Your task to perform on an android device: Open Reddit.com Image 0: 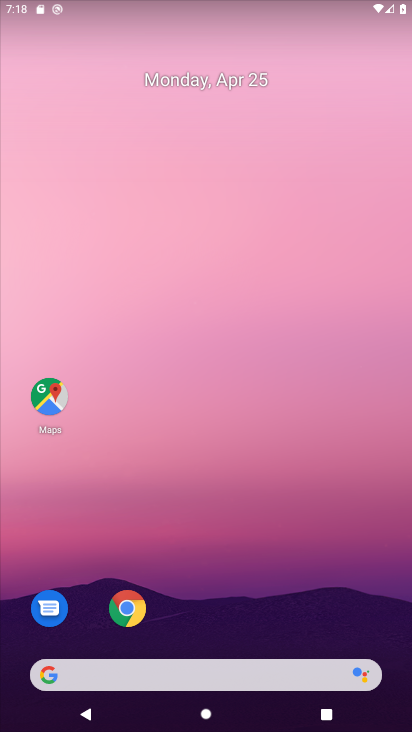
Step 0: click (128, 600)
Your task to perform on an android device: Open Reddit.com Image 1: 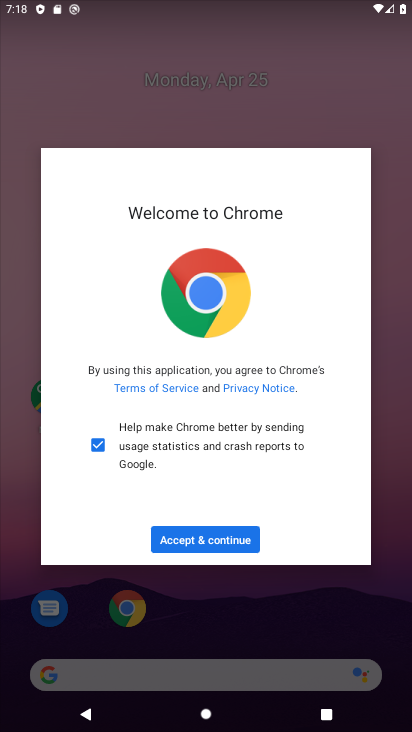
Step 1: click (231, 535)
Your task to perform on an android device: Open Reddit.com Image 2: 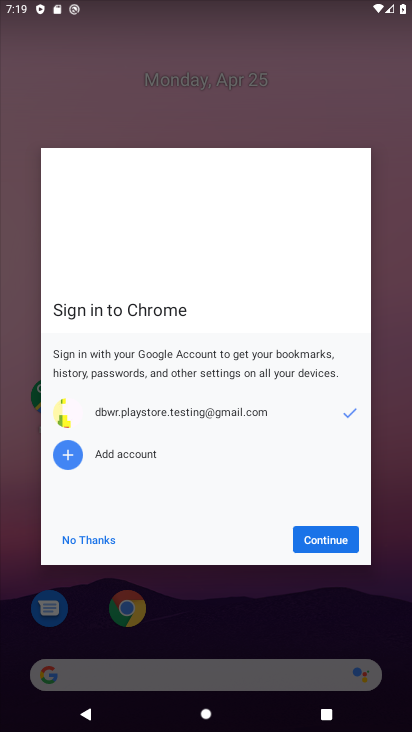
Step 2: click (330, 546)
Your task to perform on an android device: Open Reddit.com Image 3: 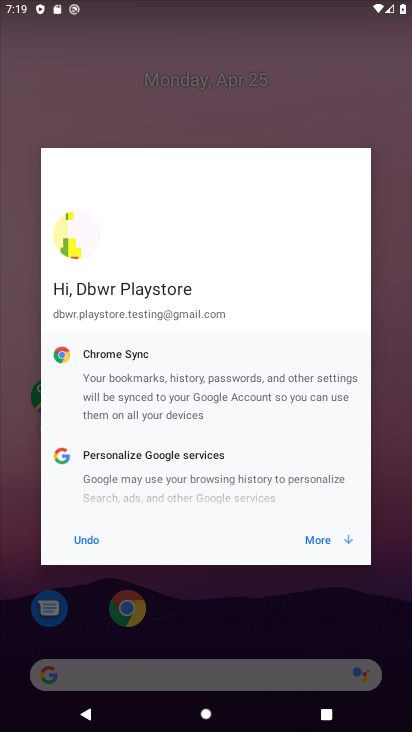
Step 3: click (330, 543)
Your task to perform on an android device: Open Reddit.com Image 4: 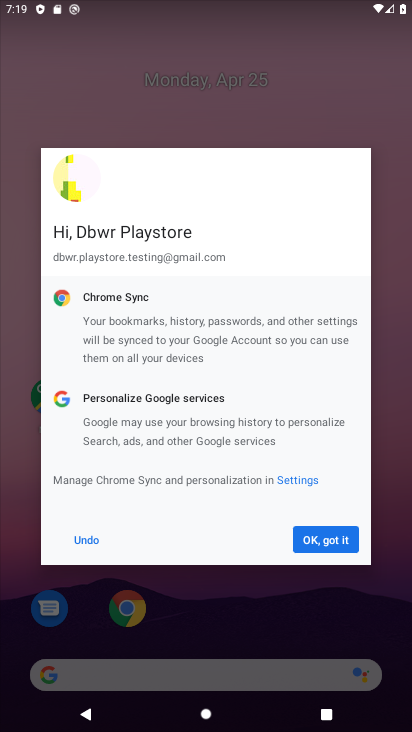
Step 4: click (330, 543)
Your task to perform on an android device: Open Reddit.com Image 5: 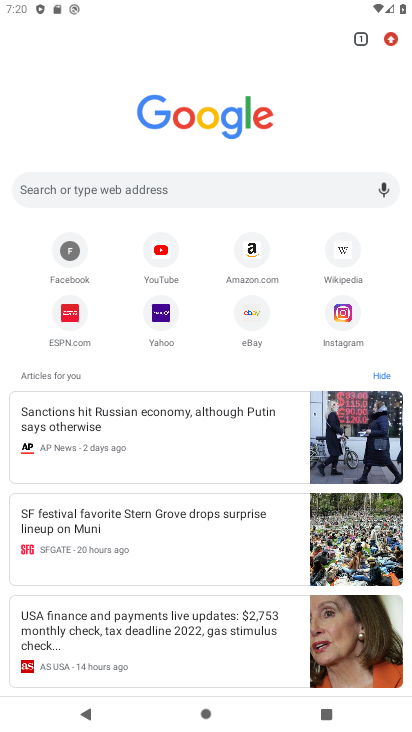
Step 5: click (252, 197)
Your task to perform on an android device: Open Reddit.com Image 6: 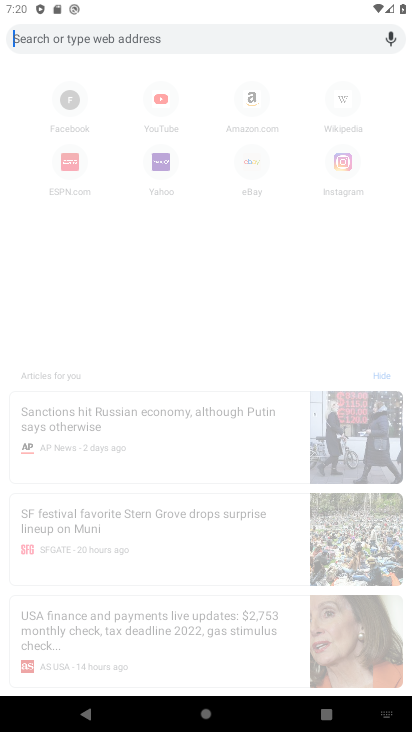
Step 6: type "Reddit.com"
Your task to perform on an android device: Open Reddit.com Image 7: 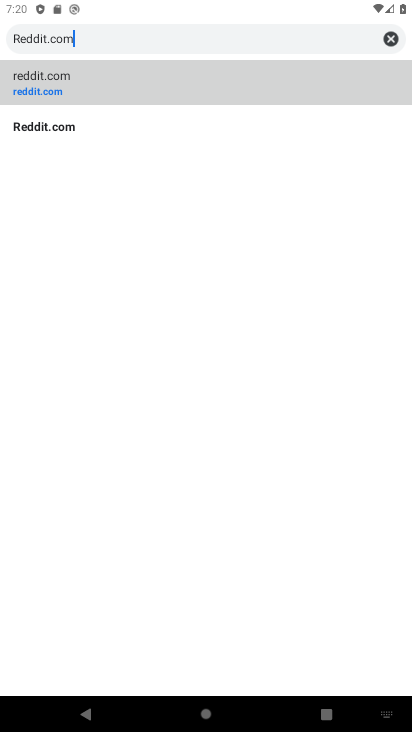
Step 7: click (60, 89)
Your task to perform on an android device: Open Reddit.com Image 8: 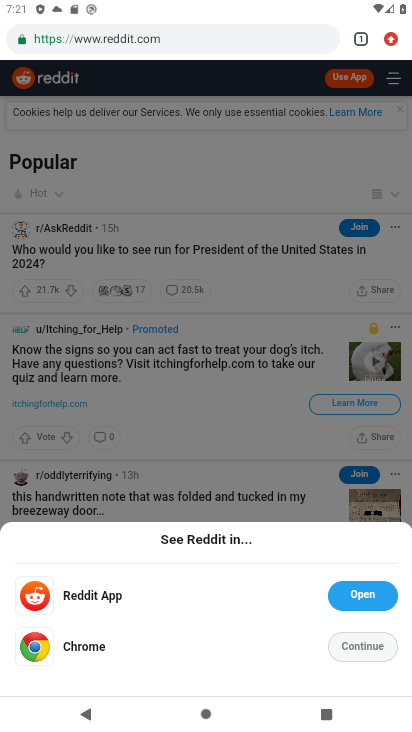
Step 8: click (371, 641)
Your task to perform on an android device: Open Reddit.com Image 9: 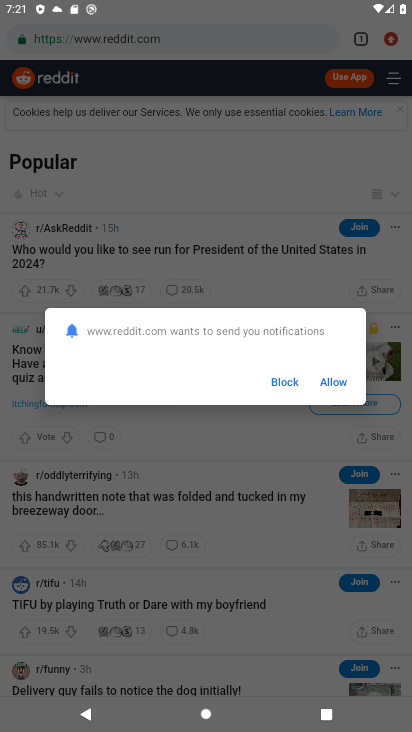
Step 9: click (323, 385)
Your task to perform on an android device: Open Reddit.com Image 10: 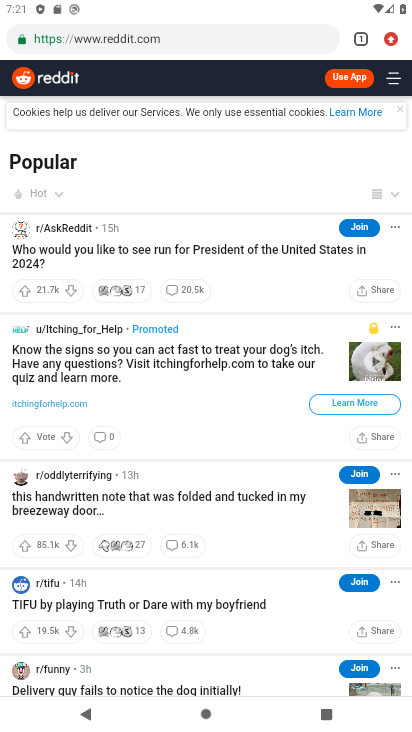
Step 10: task complete